Your task to perform on an android device: Open Google Image 0: 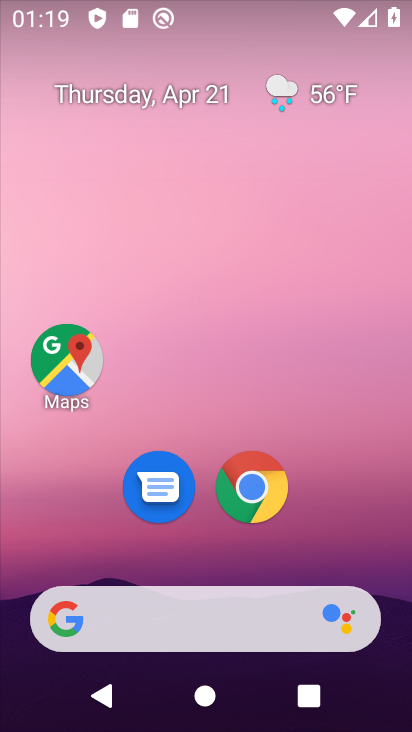
Step 0: drag from (330, 535) to (330, 51)
Your task to perform on an android device: Open Google Image 1: 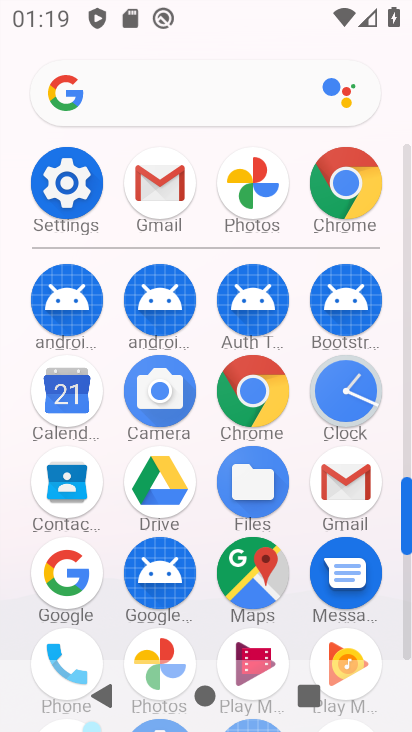
Step 1: click (67, 558)
Your task to perform on an android device: Open Google Image 2: 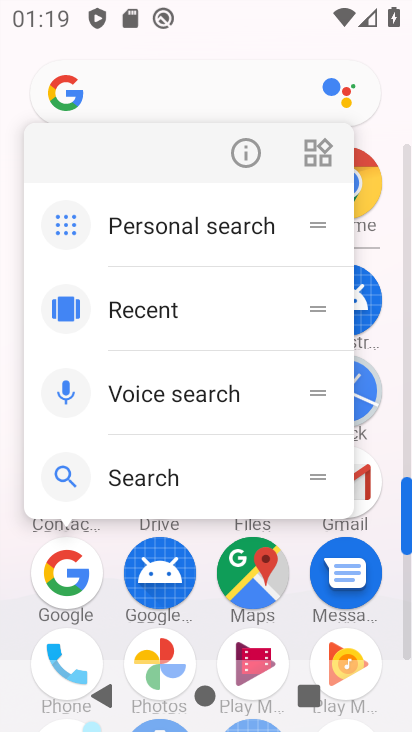
Step 2: click (83, 569)
Your task to perform on an android device: Open Google Image 3: 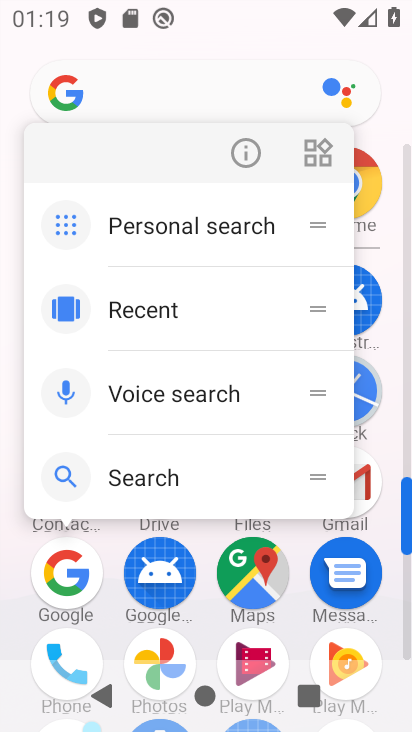
Step 3: click (95, 563)
Your task to perform on an android device: Open Google Image 4: 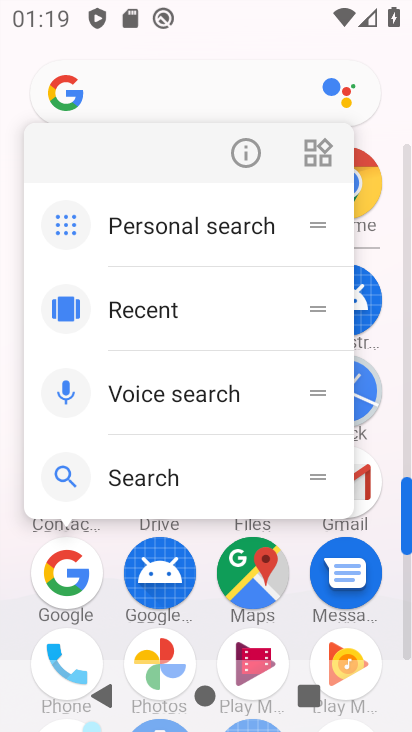
Step 4: click (95, 563)
Your task to perform on an android device: Open Google Image 5: 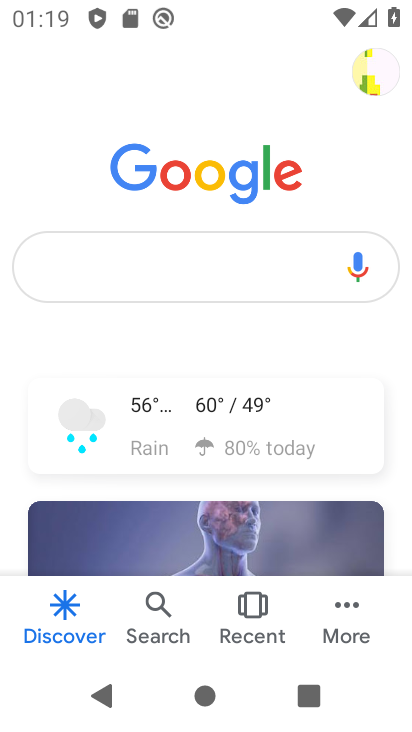
Step 5: task complete